Your task to perform on an android device: Open calendar and show me the first week of next month Image 0: 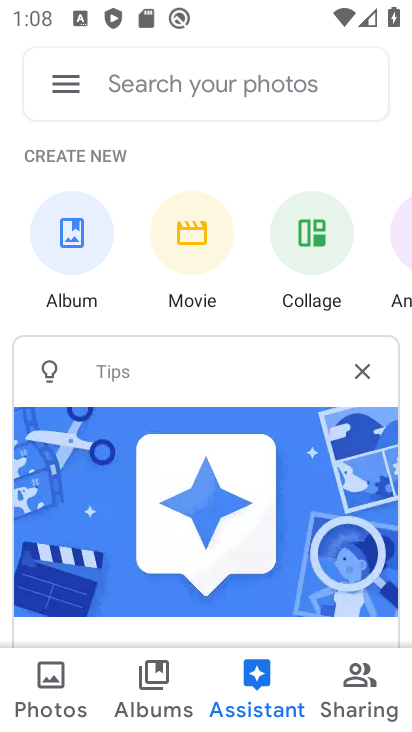
Step 0: press home button
Your task to perform on an android device: Open calendar and show me the first week of next month Image 1: 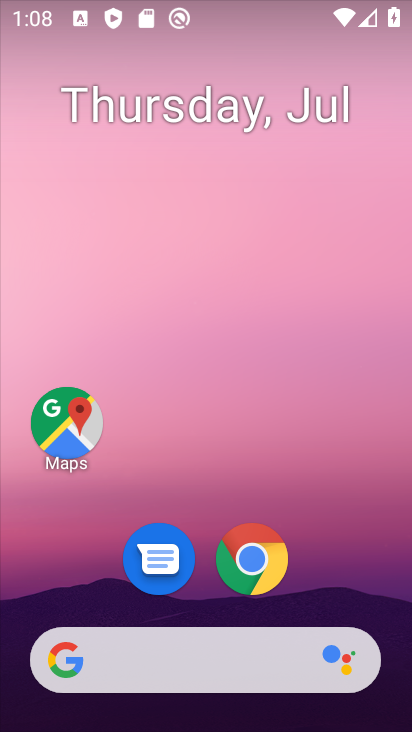
Step 1: drag from (228, 633) to (251, 87)
Your task to perform on an android device: Open calendar and show me the first week of next month Image 2: 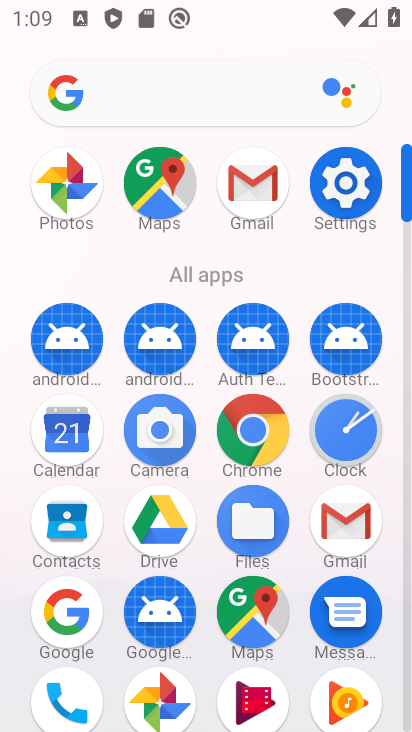
Step 2: click (86, 438)
Your task to perform on an android device: Open calendar and show me the first week of next month Image 3: 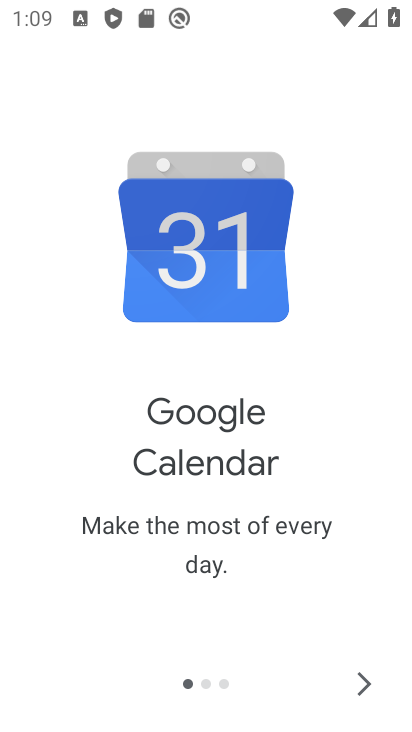
Step 3: click (365, 683)
Your task to perform on an android device: Open calendar and show me the first week of next month Image 4: 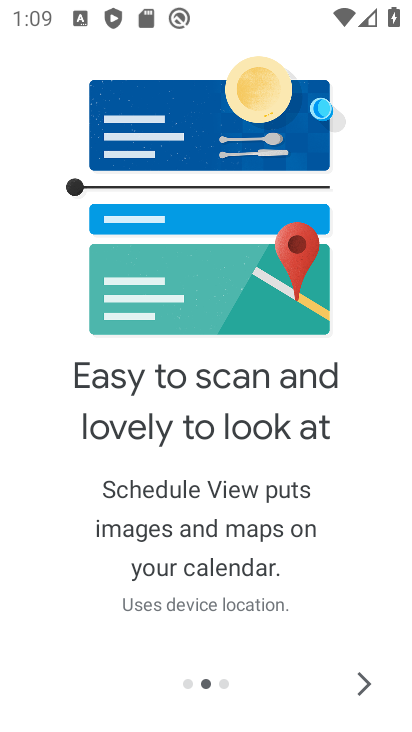
Step 4: click (365, 683)
Your task to perform on an android device: Open calendar and show me the first week of next month Image 5: 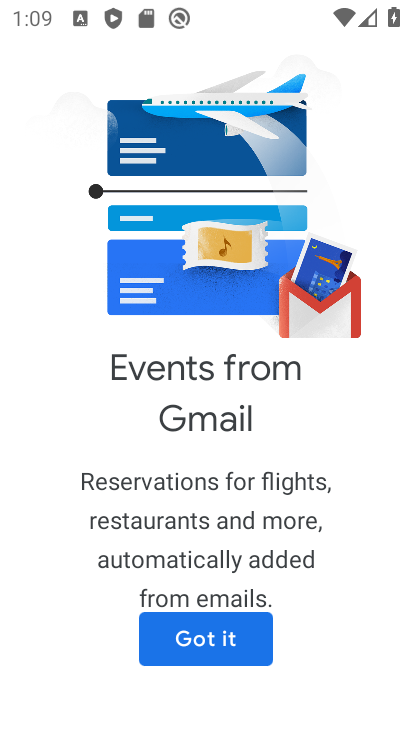
Step 5: click (221, 651)
Your task to perform on an android device: Open calendar and show me the first week of next month Image 6: 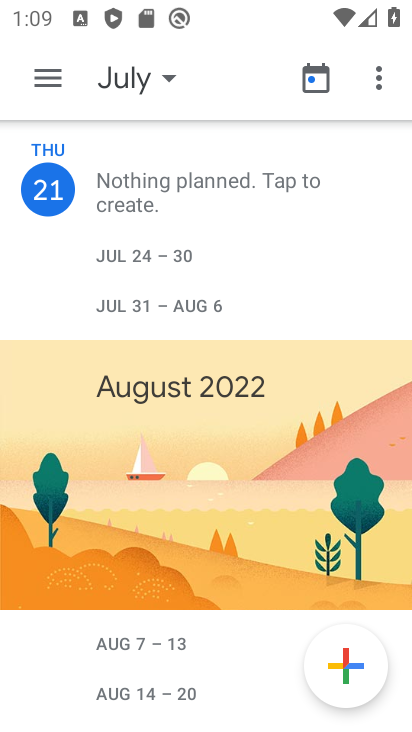
Step 6: click (141, 91)
Your task to perform on an android device: Open calendar and show me the first week of next month Image 7: 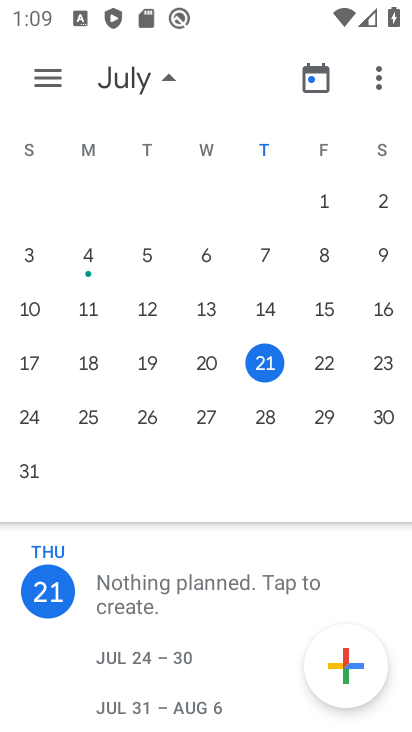
Step 7: drag from (346, 257) to (6, 322)
Your task to perform on an android device: Open calendar and show me the first week of next month Image 8: 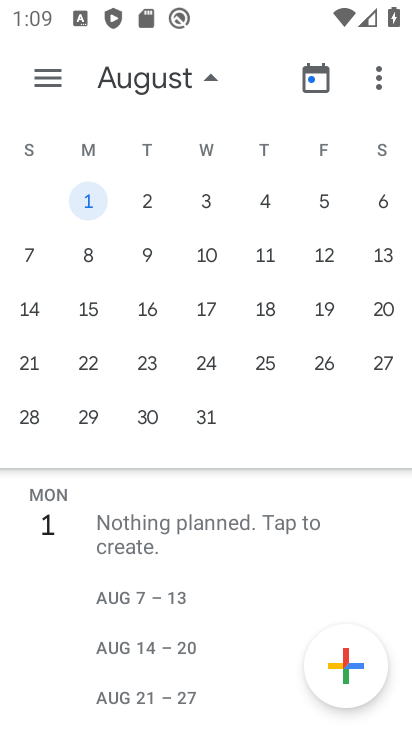
Step 8: click (92, 210)
Your task to perform on an android device: Open calendar and show me the first week of next month Image 9: 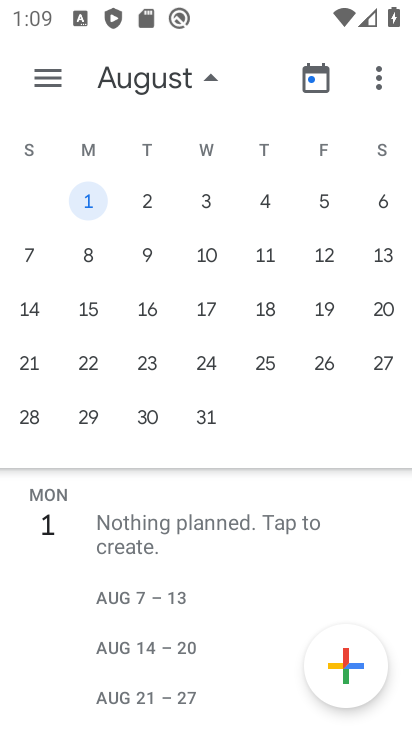
Step 9: task complete